Your task to perform on an android device: Go to calendar. Show me events next week Image 0: 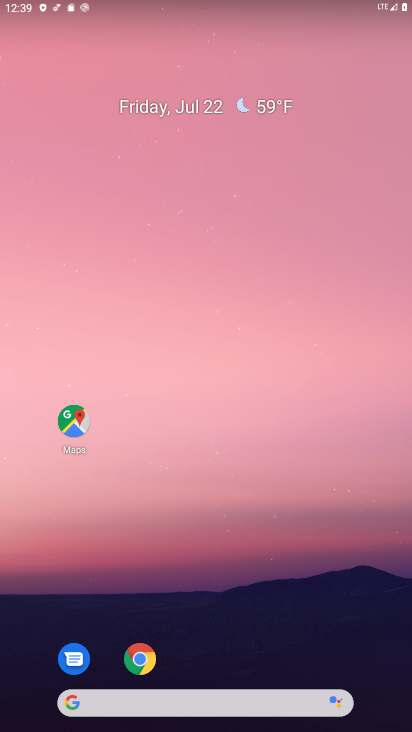
Step 0: drag from (196, 641) to (191, 200)
Your task to perform on an android device: Go to calendar. Show me events next week Image 1: 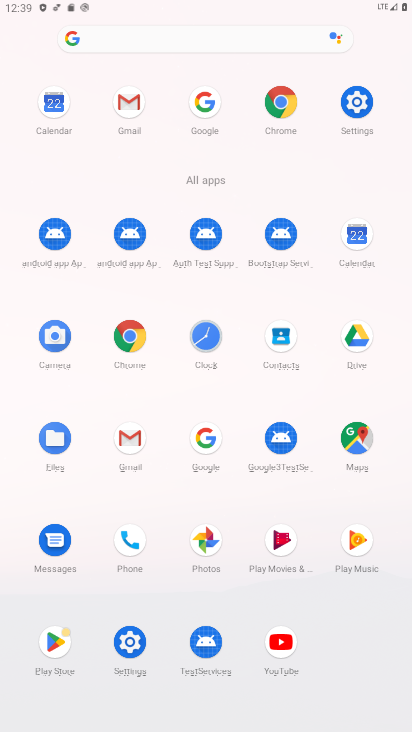
Step 1: click (352, 249)
Your task to perform on an android device: Go to calendar. Show me events next week Image 2: 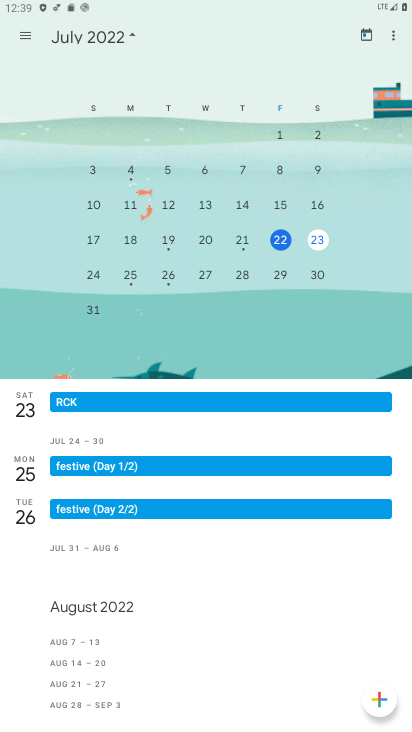
Step 2: click (307, 278)
Your task to perform on an android device: Go to calendar. Show me events next week Image 3: 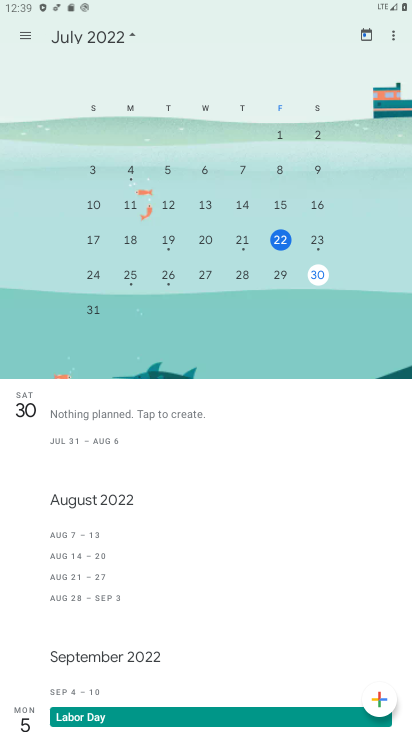
Step 3: click (89, 267)
Your task to perform on an android device: Go to calendar. Show me events next week Image 4: 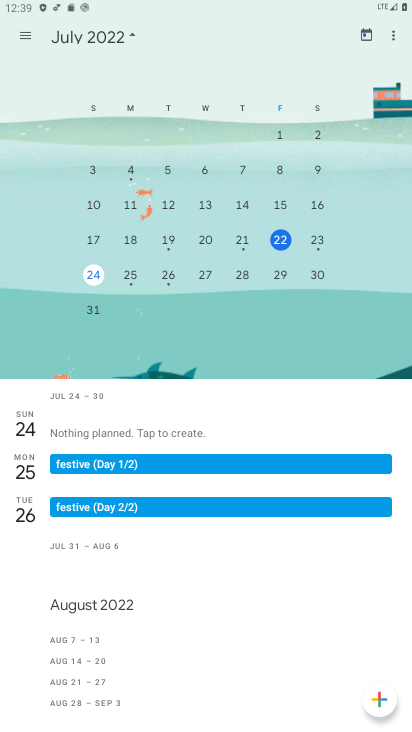
Step 4: task complete